Your task to perform on an android device: Go to Yahoo.com Image 0: 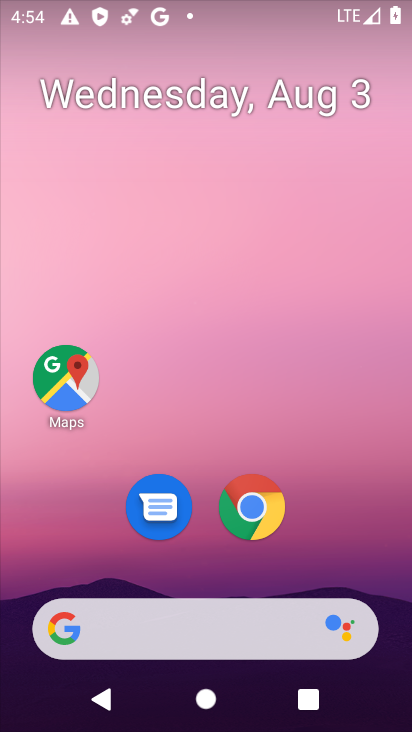
Step 0: click (260, 513)
Your task to perform on an android device: Go to Yahoo.com Image 1: 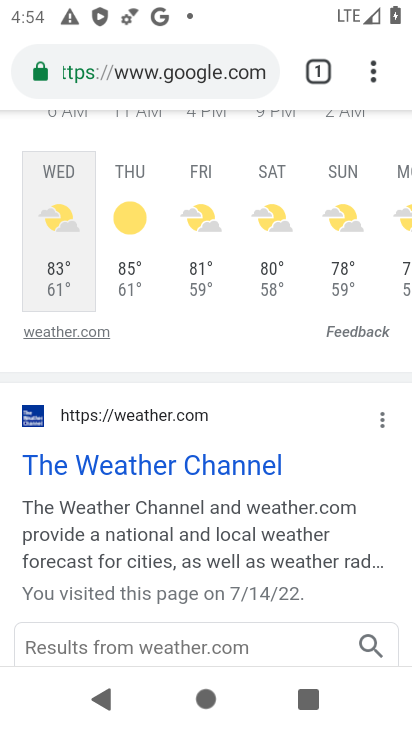
Step 1: click (223, 95)
Your task to perform on an android device: Go to Yahoo.com Image 2: 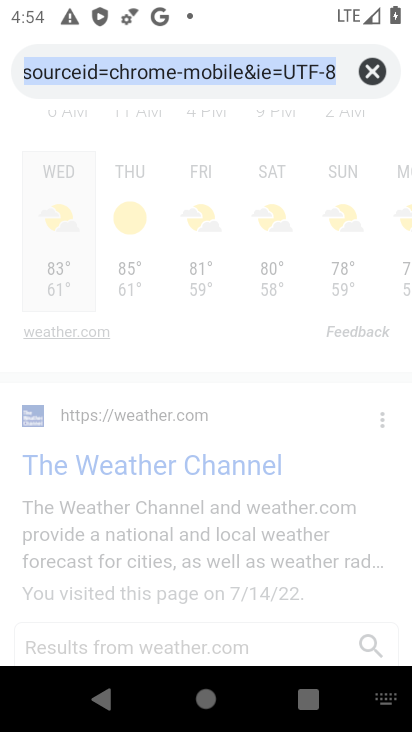
Step 2: type "yahoo.com"
Your task to perform on an android device: Go to Yahoo.com Image 3: 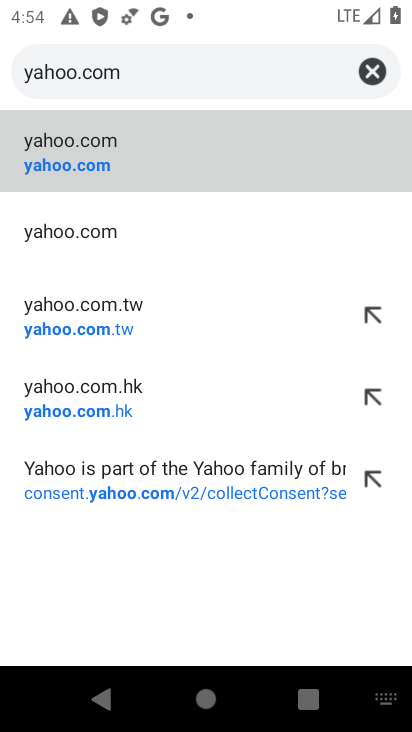
Step 3: click (52, 149)
Your task to perform on an android device: Go to Yahoo.com Image 4: 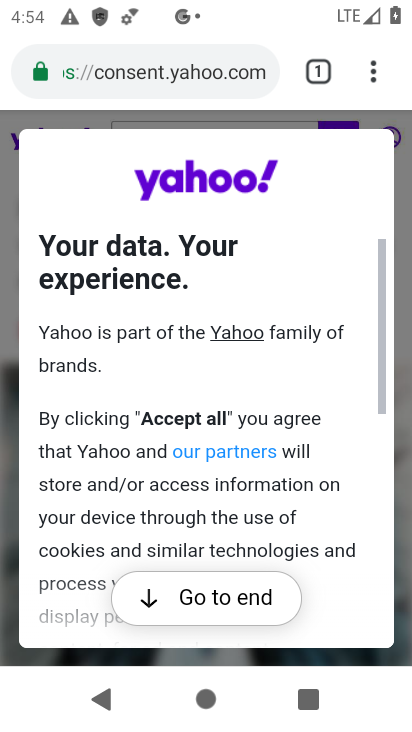
Step 4: task complete